Your task to perform on an android device: check storage Image 0: 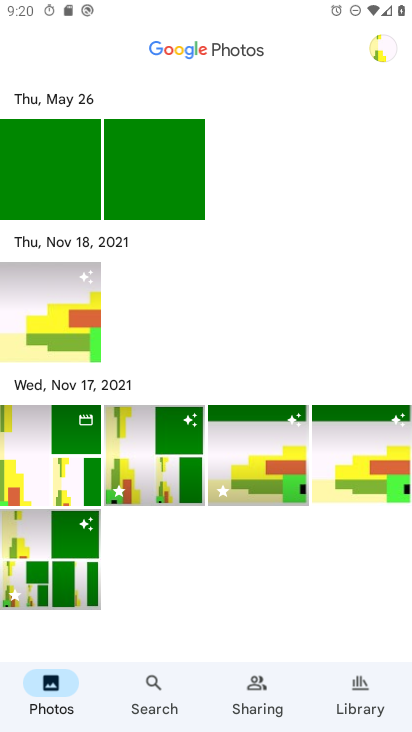
Step 0: press home button
Your task to perform on an android device: check storage Image 1: 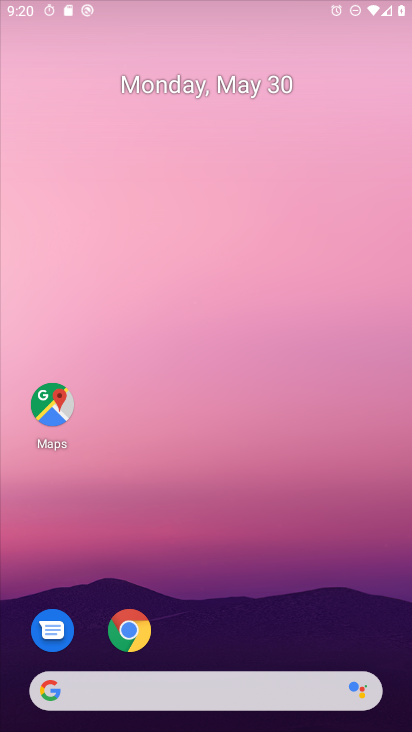
Step 1: drag from (310, 618) to (125, 18)
Your task to perform on an android device: check storage Image 2: 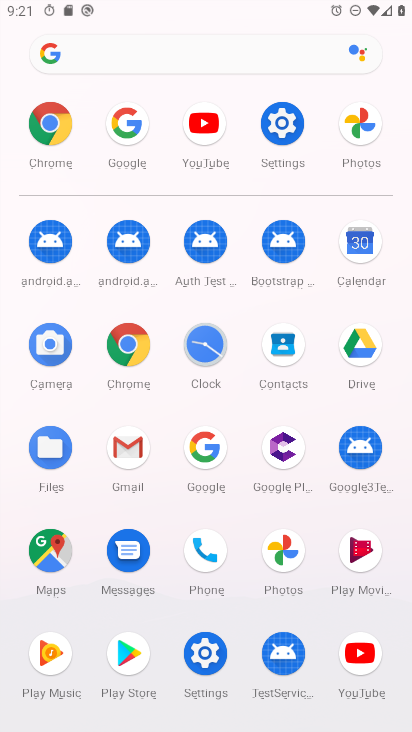
Step 2: click (262, 131)
Your task to perform on an android device: check storage Image 3: 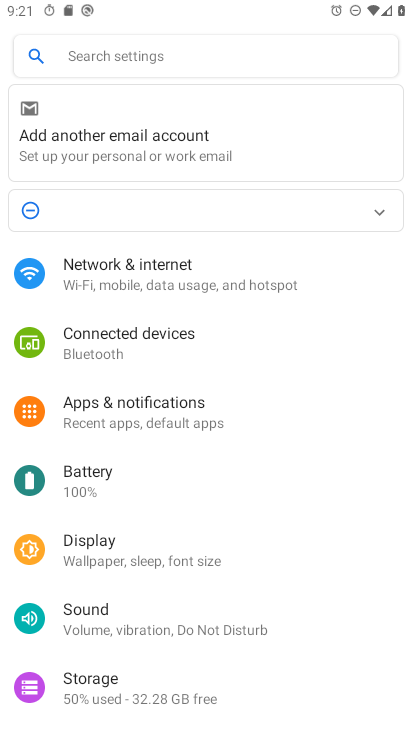
Step 3: click (88, 704)
Your task to perform on an android device: check storage Image 4: 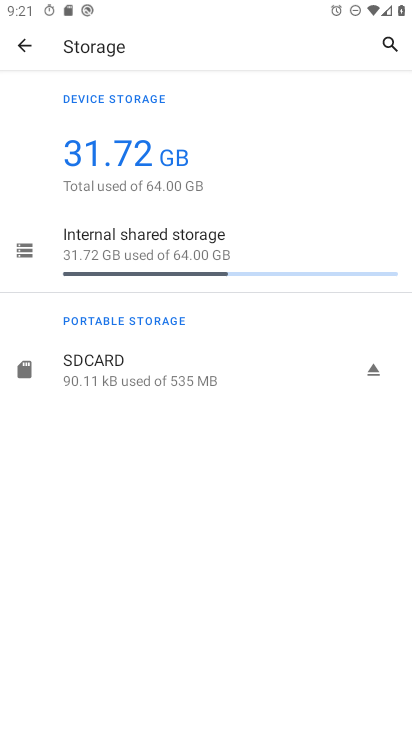
Step 4: click (172, 260)
Your task to perform on an android device: check storage Image 5: 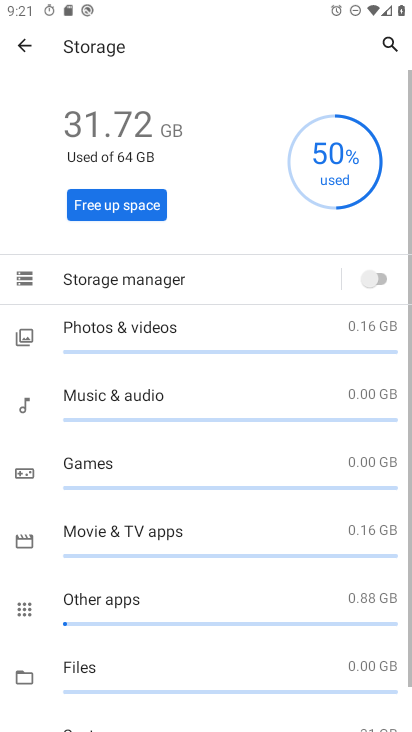
Step 5: task complete